Your task to perform on an android device: turn vacation reply on in the gmail app Image 0: 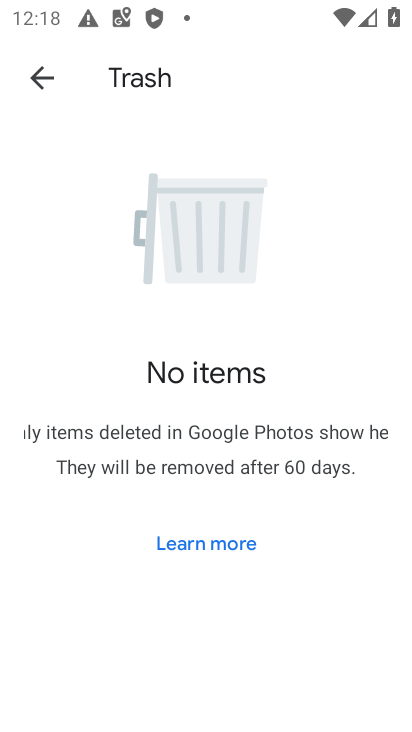
Step 0: press home button
Your task to perform on an android device: turn vacation reply on in the gmail app Image 1: 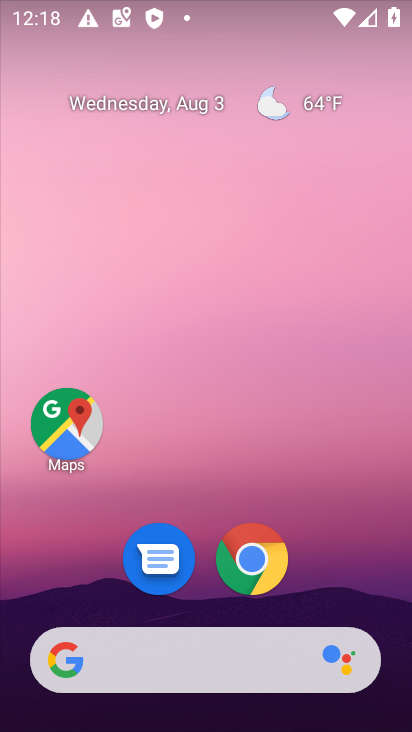
Step 1: drag from (196, 532) to (186, 89)
Your task to perform on an android device: turn vacation reply on in the gmail app Image 2: 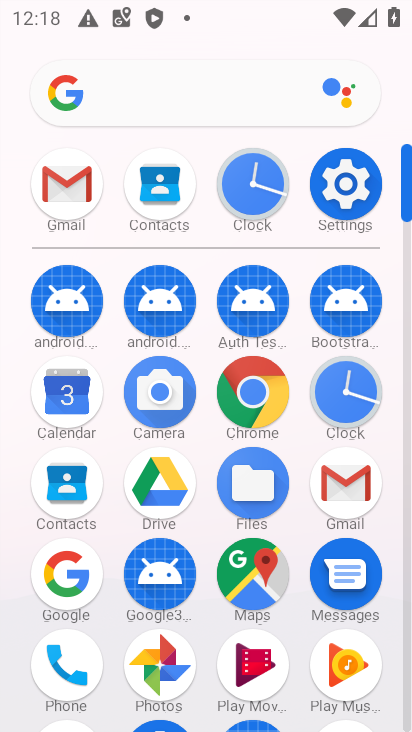
Step 2: click (347, 489)
Your task to perform on an android device: turn vacation reply on in the gmail app Image 3: 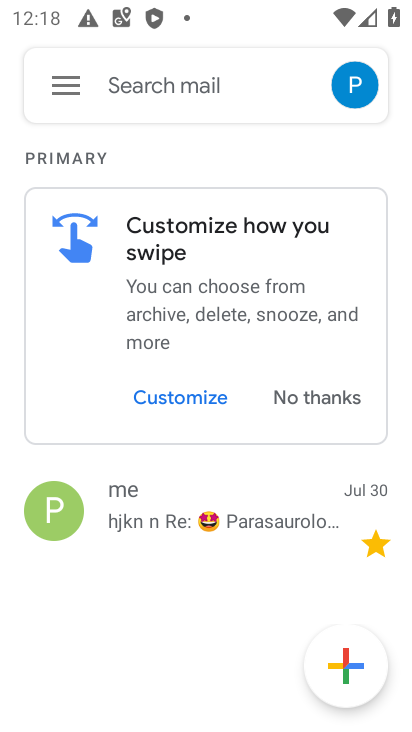
Step 3: click (64, 92)
Your task to perform on an android device: turn vacation reply on in the gmail app Image 4: 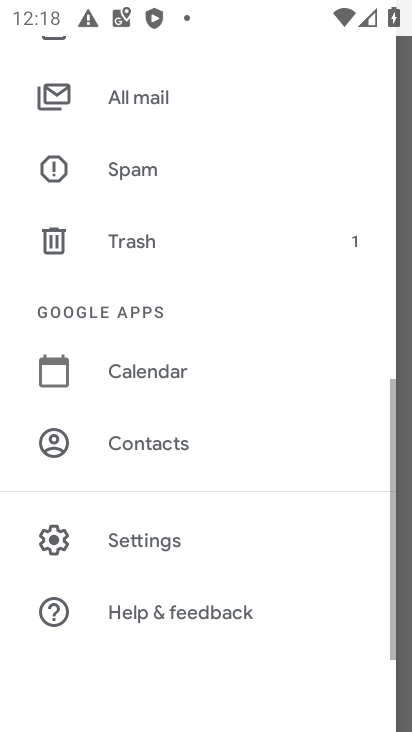
Step 4: click (135, 544)
Your task to perform on an android device: turn vacation reply on in the gmail app Image 5: 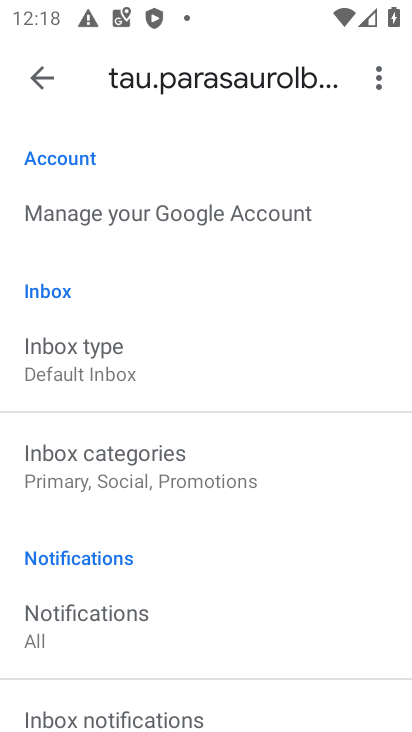
Step 5: drag from (119, 683) to (93, 419)
Your task to perform on an android device: turn vacation reply on in the gmail app Image 6: 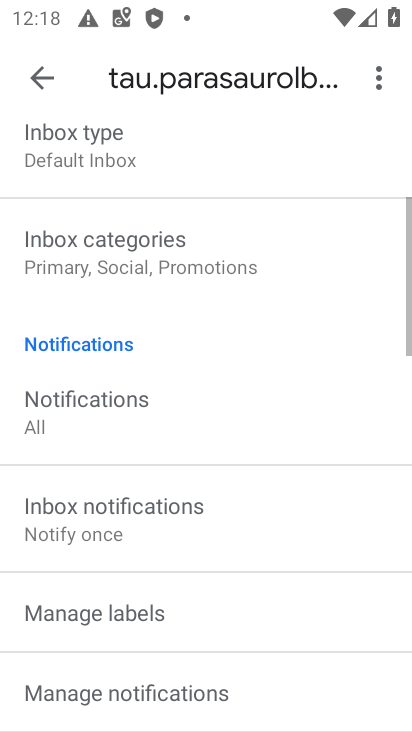
Step 6: click (91, 321)
Your task to perform on an android device: turn vacation reply on in the gmail app Image 7: 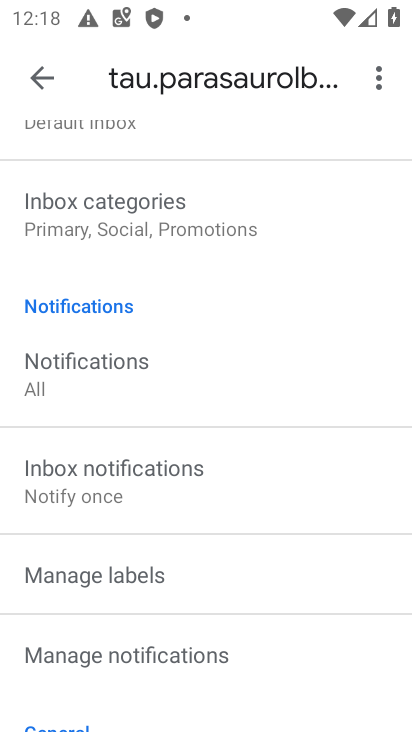
Step 7: click (86, 698)
Your task to perform on an android device: turn vacation reply on in the gmail app Image 8: 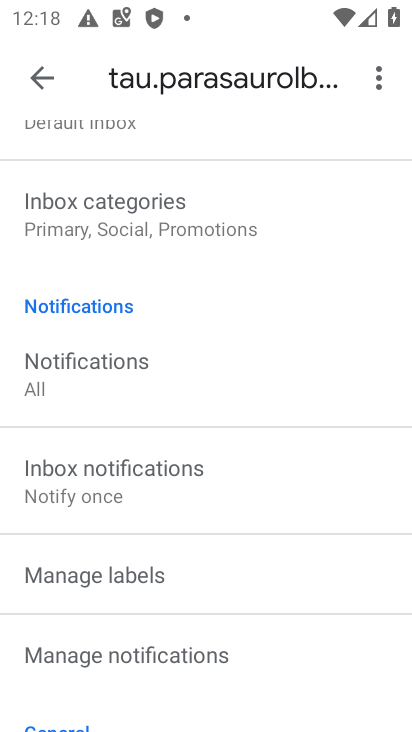
Step 8: drag from (88, 580) to (104, 456)
Your task to perform on an android device: turn vacation reply on in the gmail app Image 9: 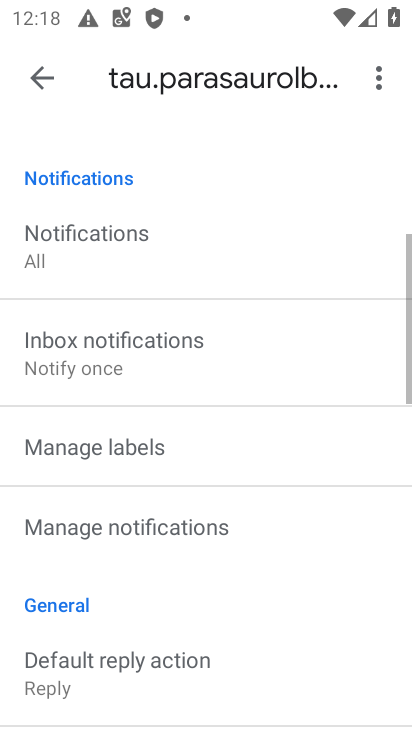
Step 9: click (105, 416)
Your task to perform on an android device: turn vacation reply on in the gmail app Image 10: 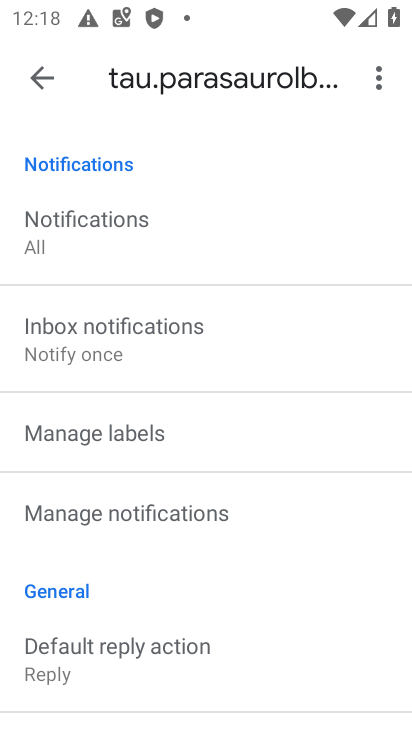
Step 10: drag from (156, 695) to (155, 292)
Your task to perform on an android device: turn vacation reply on in the gmail app Image 11: 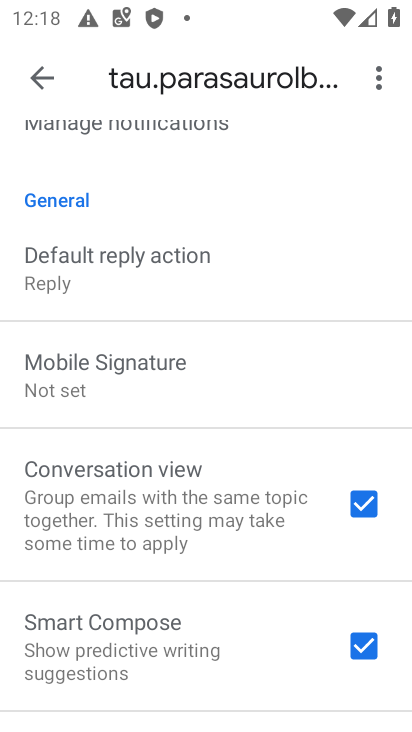
Step 11: drag from (194, 687) to (198, 330)
Your task to perform on an android device: turn vacation reply on in the gmail app Image 12: 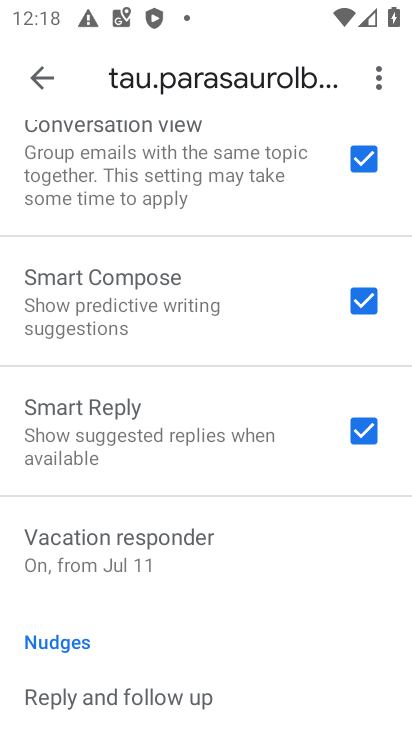
Step 12: click (115, 533)
Your task to perform on an android device: turn vacation reply on in the gmail app Image 13: 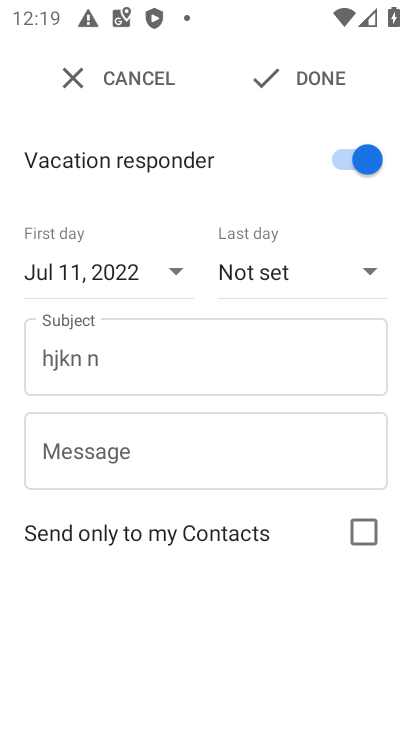
Step 13: task complete